Your task to perform on an android device: Open Reddit.com Image 0: 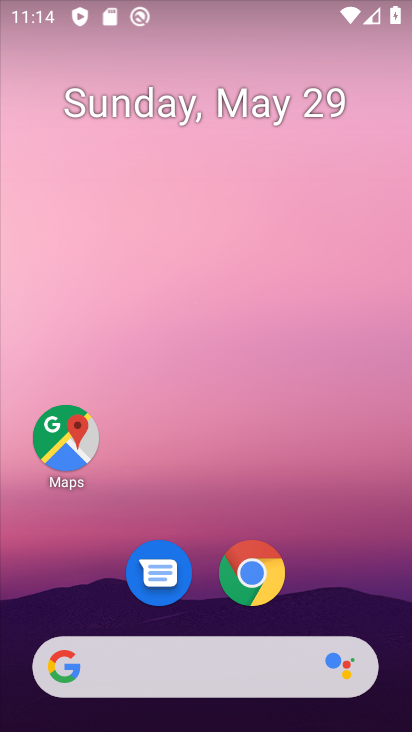
Step 0: click (198, 663)
Your task to perform on an android device: Open Reddit.com Image 1: 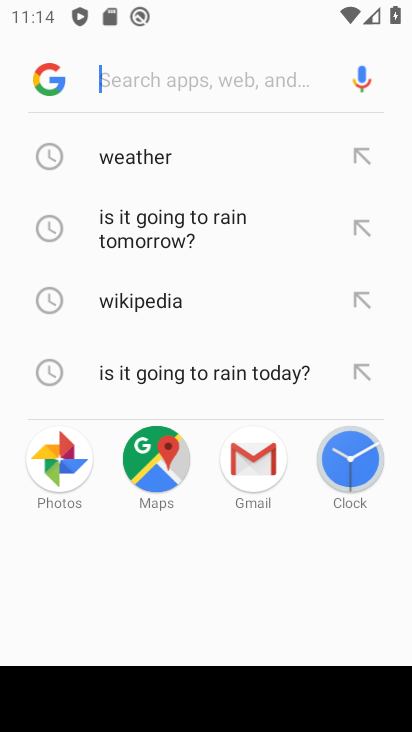
Step 1: type " Reddit.com"
Your task to perform on an android device: Open Reddit.com Image 2: 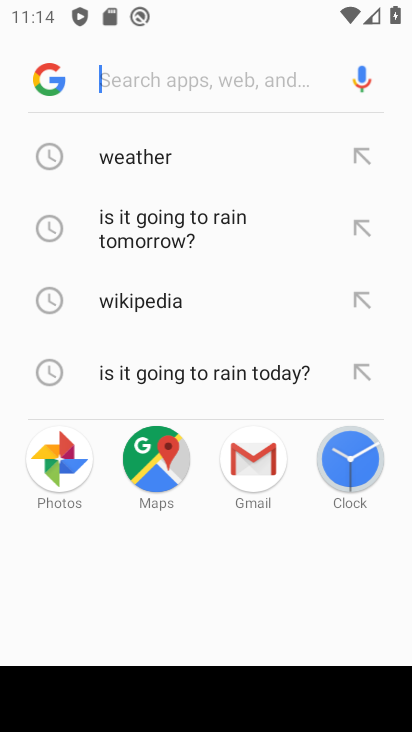
Step 2: click (174, 74)
Your task to perform on an android device: Open Reddit.com Image 3: 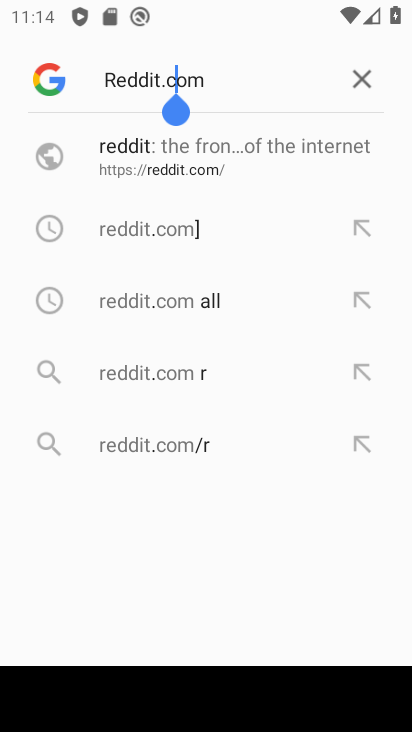
Step 3: click (176, 164)
Your task to perform on an android device: Open Reddit.com Image 4: 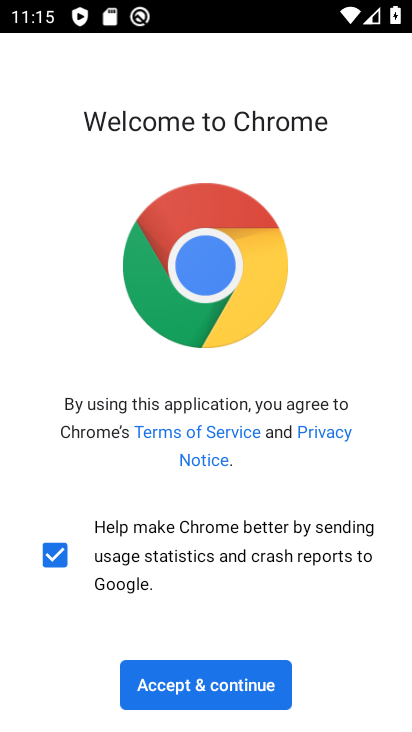
Step 4: click (197, 683)
Your task to perform on an android device: Open Reddit.com Image 5: 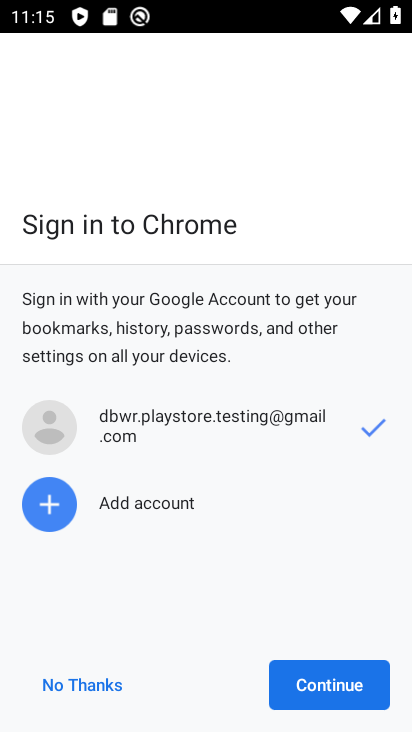
Step 5: click (321, 679)
Your task to perform on an android device: Open Reddit.com Image 6: 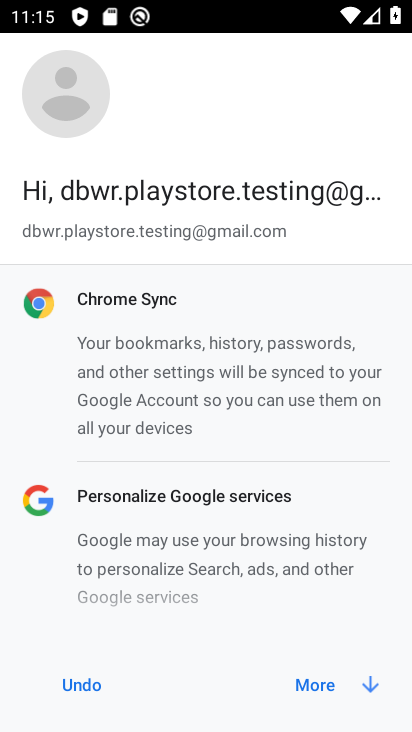
Step 6: click (321, 679)
Your task to perform on an android device: Open Reddit.com Image 7: 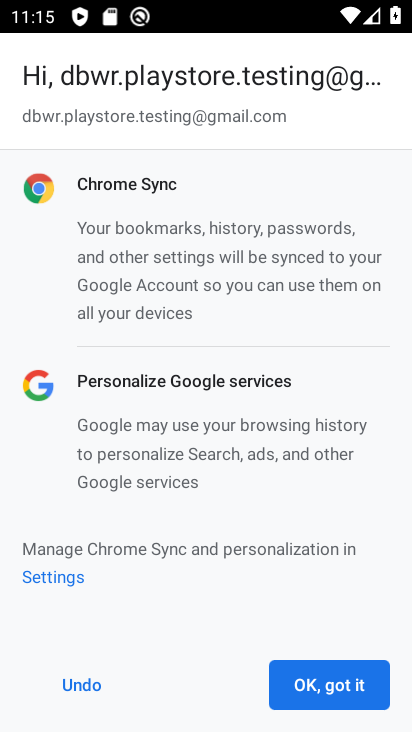
Step 7: click (322, 679)
Your task to perform on an android device: Open Reddit.com Image 8: 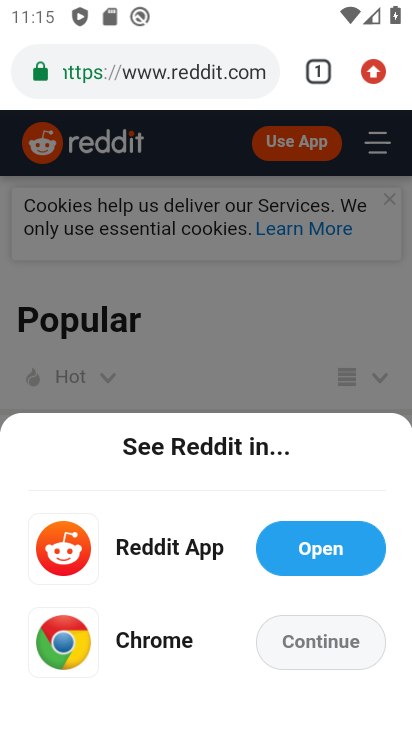
Step 8: task complete